Your task to perform on an android device: What's the weather going to be tomorrow? Image 0: 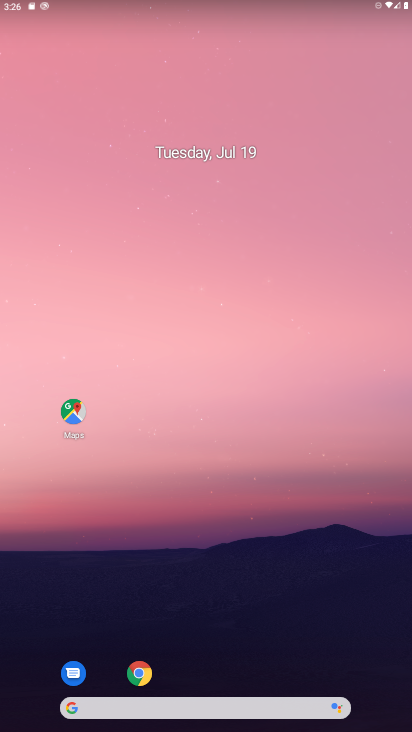
Step 0: click (218, 698)
Your task to perform on an android device: What's the weather going to be tomorrow? Image 1: 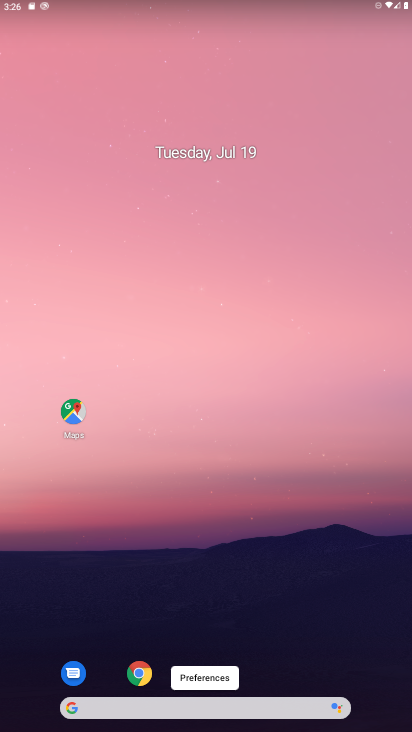
Step 1: click (218, 698)
Your task to perform on an android device: What's the weather going to be tomorrow? Image 2: 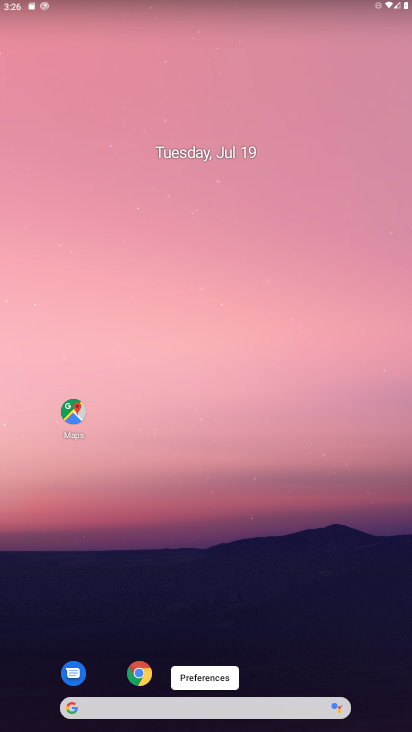
Step 2: click (167, 703)
Your task to perform on an android device: What's the weather going to be tomorrow? Image 3: 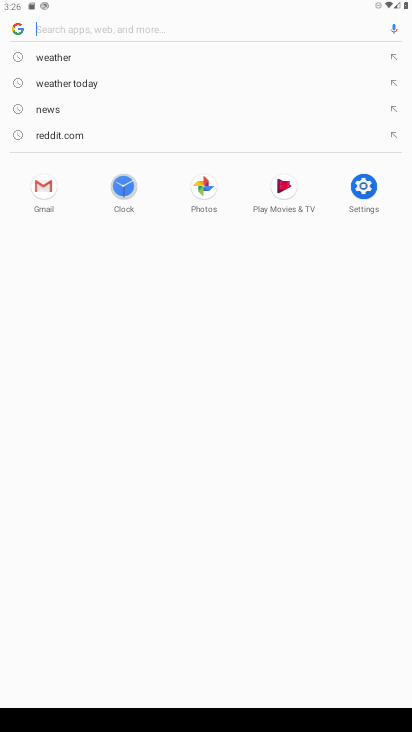
Step 3: click (41, 58)
Your task to perform on an android device: What's the weather going to be tomorrow? Image 4: 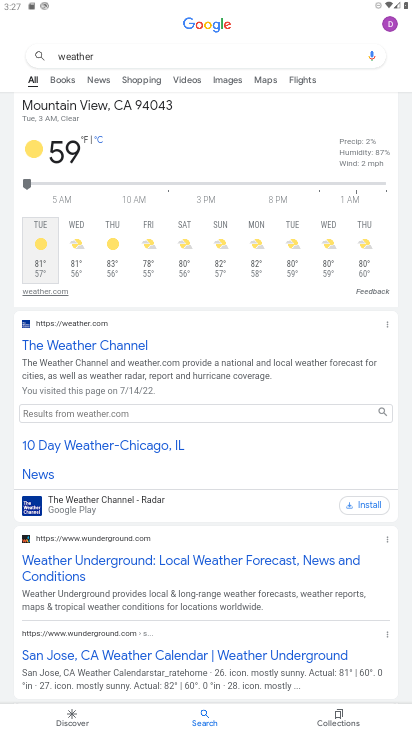
Step 4: click (80, 250)
Your task to perform on an android device: What's the weather going to be tomorrow? Image 5: 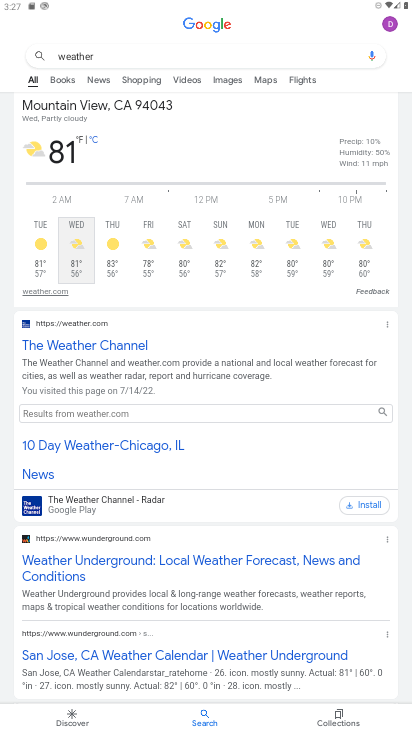
Step 5: task complete